Your task to perform on an android device: check google app version Image 0: 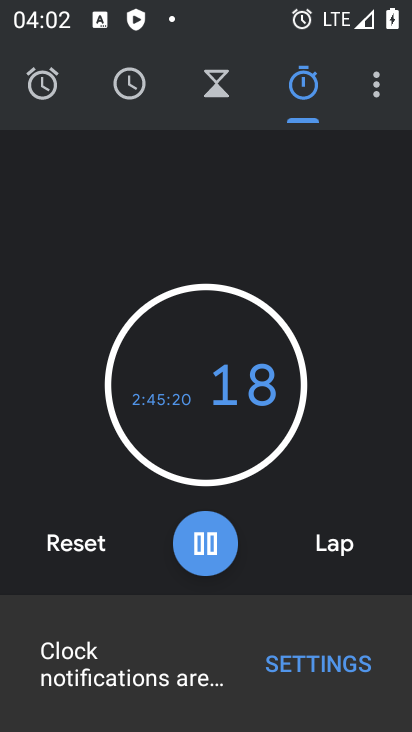
Step 0: press home button
Your task to perform on an android device: check google app version Image 1: 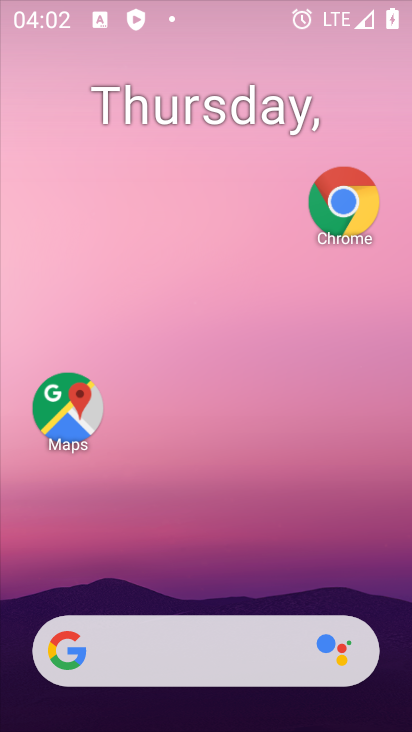
Step 1: drag from (304, 575) to (287, 8)
Your task to perform on an android device: check google app version Image 2: 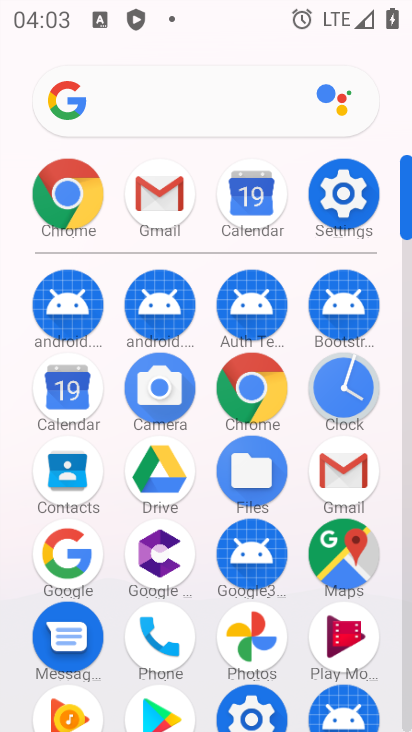
Step 2: click (272, 402)
Your task to perform on an android device: check google app version Image 3: 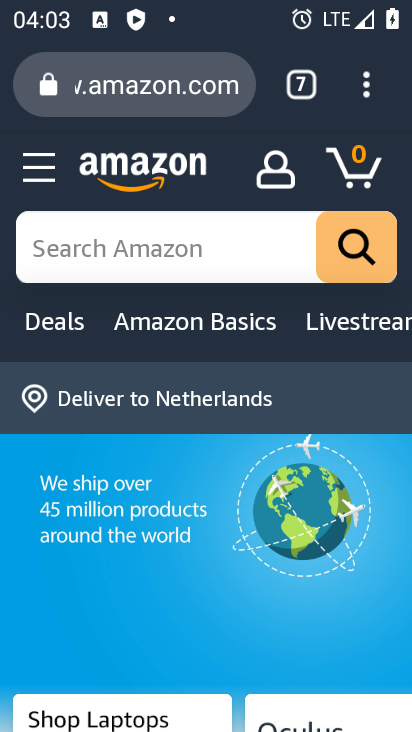
Step 3: click (362, 81)
Your task to perform on an android device: check google app version Image 4: 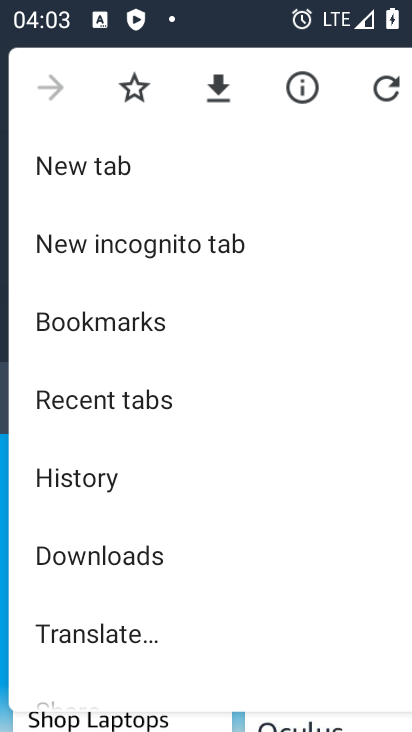
Step 4: drag from (162, 621) to (193, 215)
Your task to perform on an android device: check google app version Image 5: 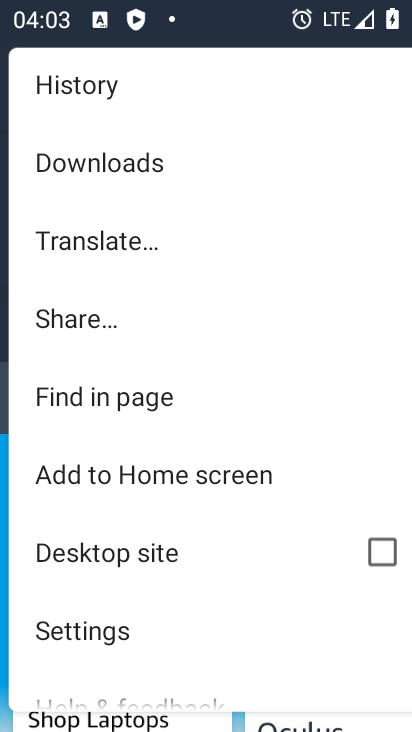
Step 5: drag from (204, 669) to (243, 177)
Your task to perform on an android device: check google app version Image 6: 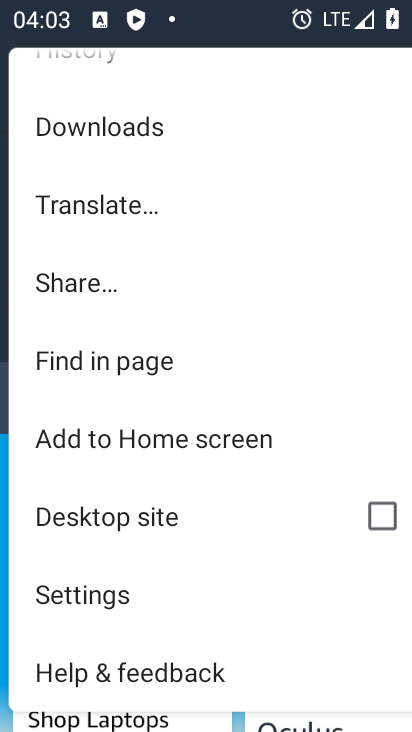
Step 6: click (182, 679)
Your task to perform on an android device: check google app version Image 7: 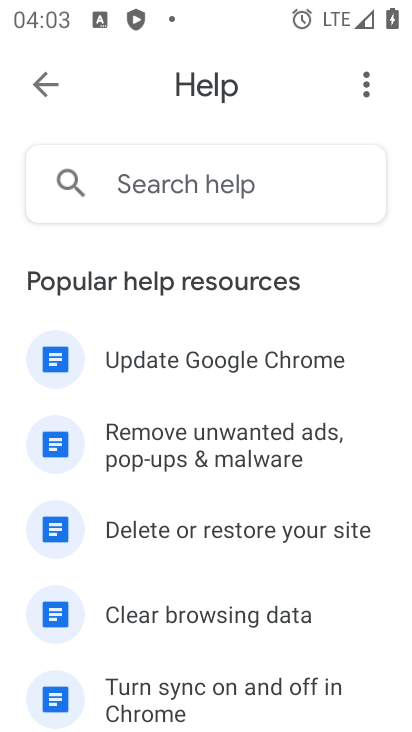
Step 7: click (368, 77)
Your task to perform on an android device: check google app version Image 8: 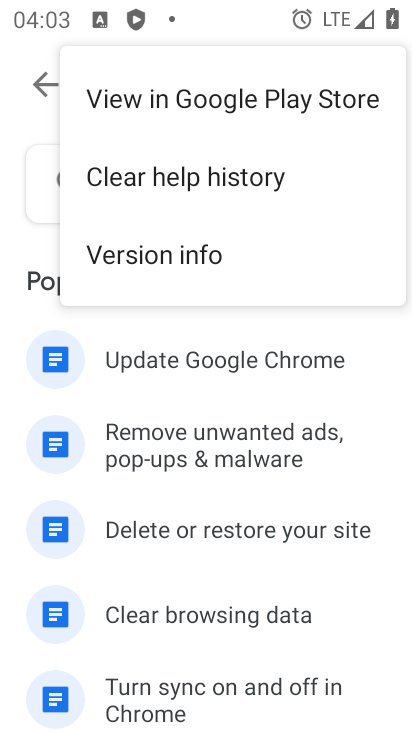
Step 8: click (277, 250)
Your task to perform on an android device: check google app version Image 9: 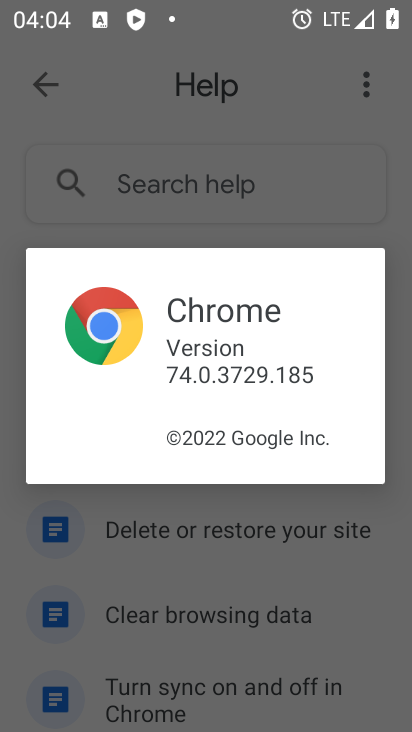
Step 9: task complete